Your task to perform on an android device: What's on my calendar today? Image 0: 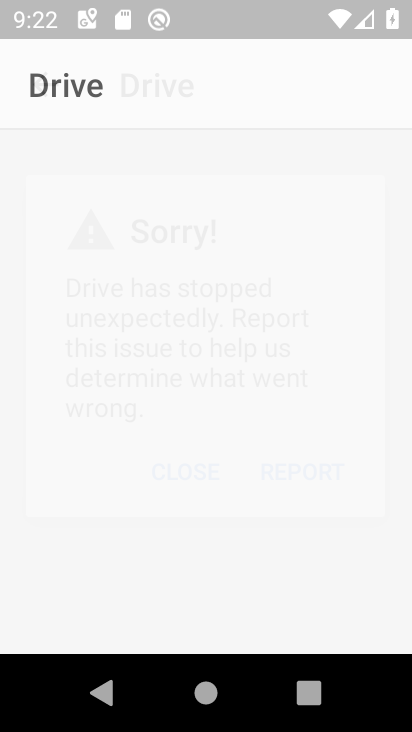
Step 0: drag from (350, 503) to (351, 167)
Your task to perform on an android device: What's on my calendar today? Image 1: 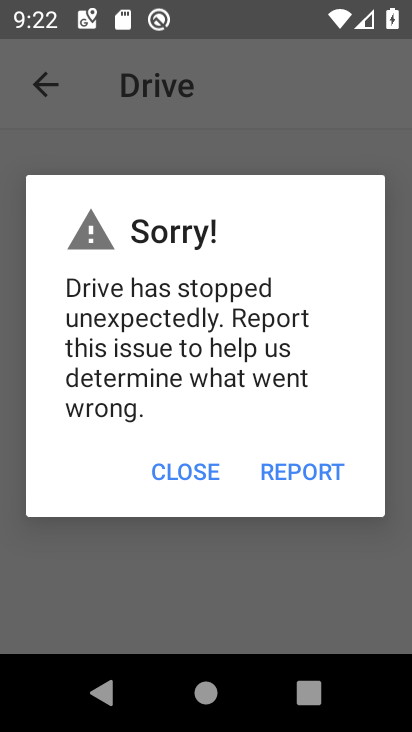
Step 1: press home button
Your task to perform on an android device: What's on my calendar today? Image 2: 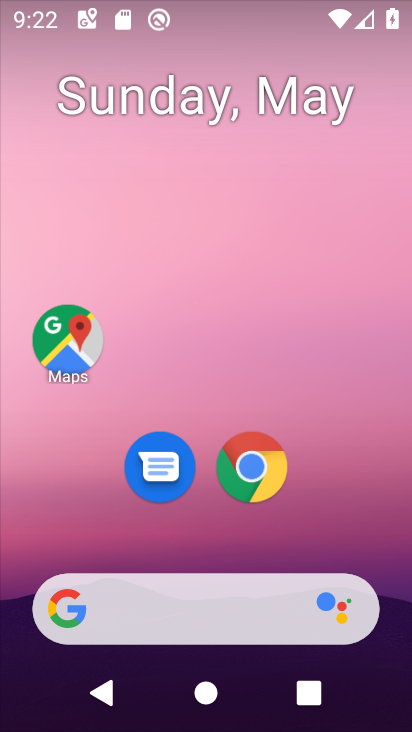
Step 2: drag from (340, 522) to (369, 124)
Your task to perform on an android device: What's on my calendar today? Image 3: 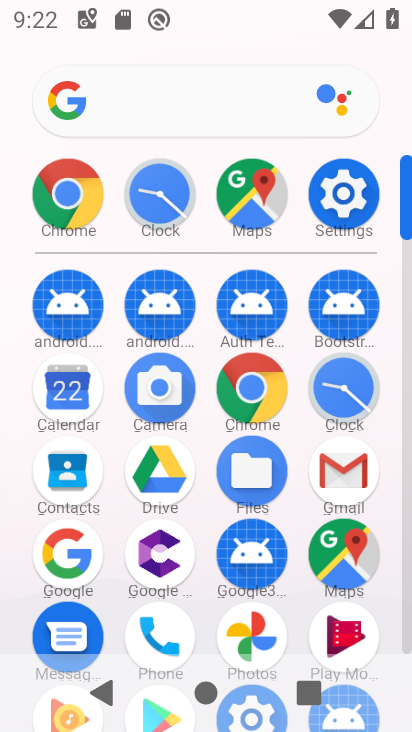
Step 3: click (69, 396)
Your task to perform on an android device: What's on my calendar today? Image 4: 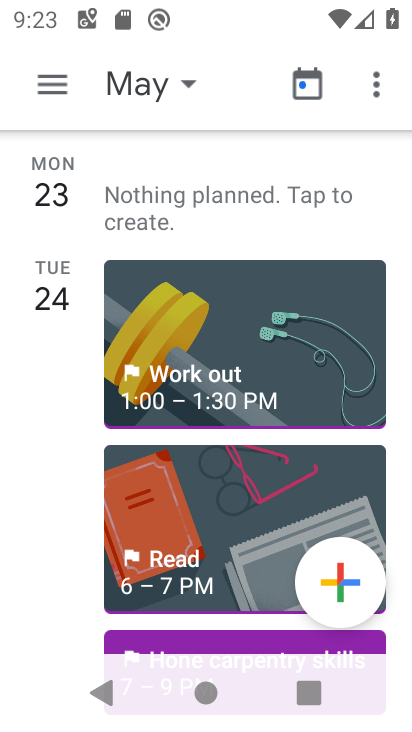
Step 4: click (171, 87)
Your task to perform on an android device: What's on my calendar today? Image 5: 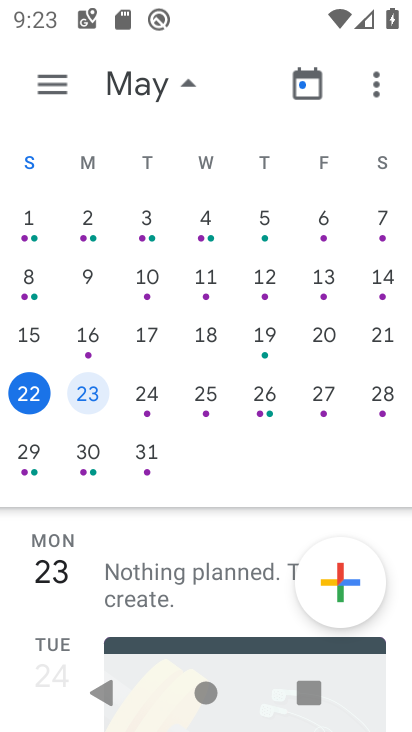
Step 5: click (31, 406)
Your task to perform on an android device: What's on my calendar today? Image 6: 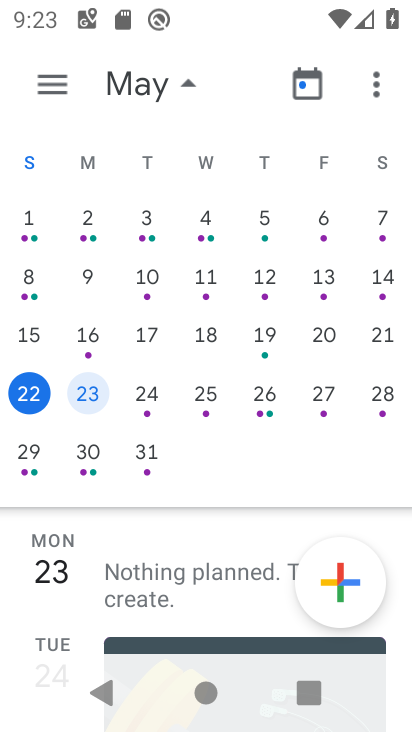
Step 6: click (34, 399)
Your task to perform on an android device: What's on my calendar today? Image 7: 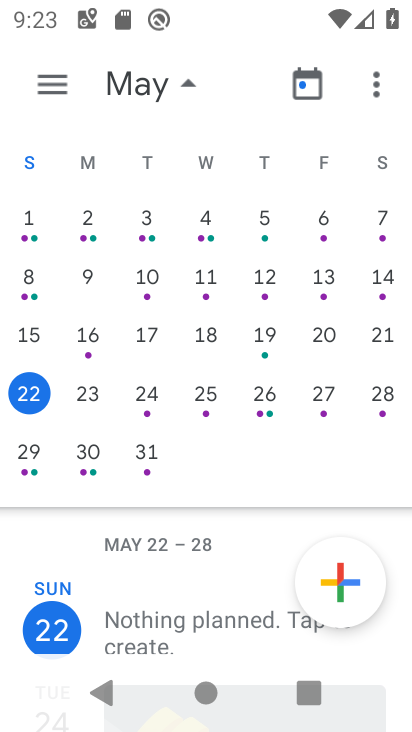
Step 7: task complete